Your task to perform on an android device: Open Google Maps and go to "Timeline" Image 0: 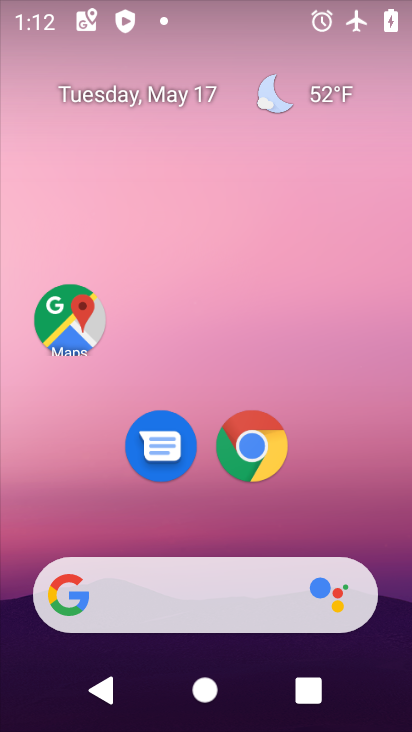
Step 0: click (73, 307)
Your task to perform on an android device: Open Google Maps and go to "Timeline" Image 1: 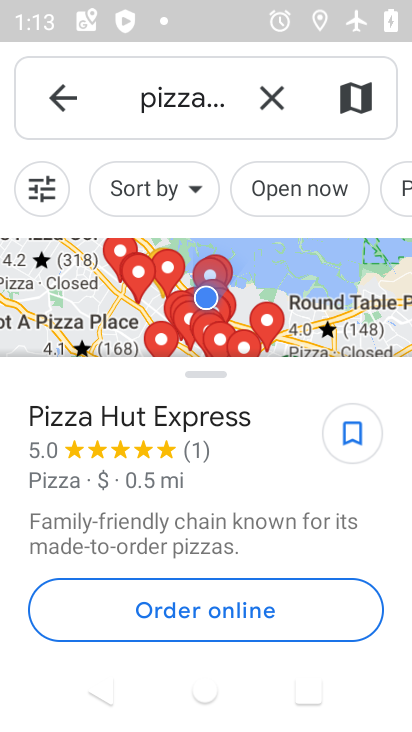
Step 1: click (68, 97)
Your task to perform on an android device: Open Google Maps and go to "Timeline" Image 2: 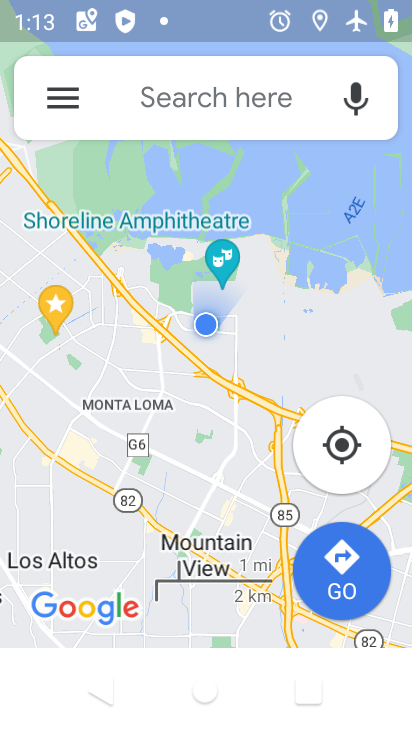
Step 2: click (57, 90)
Your task to perform on an android device: Open Google Maps and go to "Timeline" Image 3: 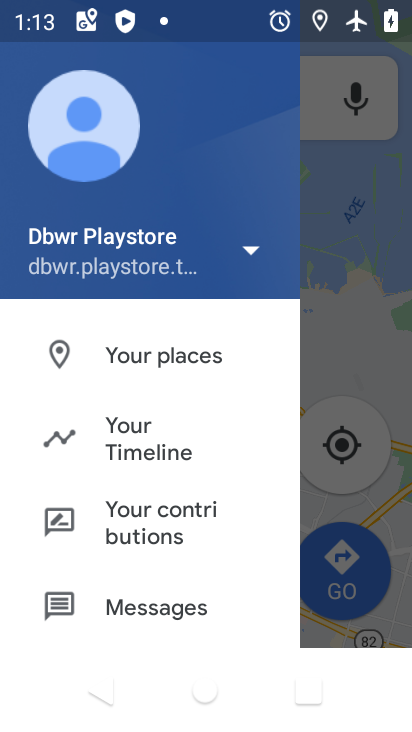
Step 3: click (154, 442)
Your task to perform on an android device: Open Google Maps and go to "Timeline" Image 4: 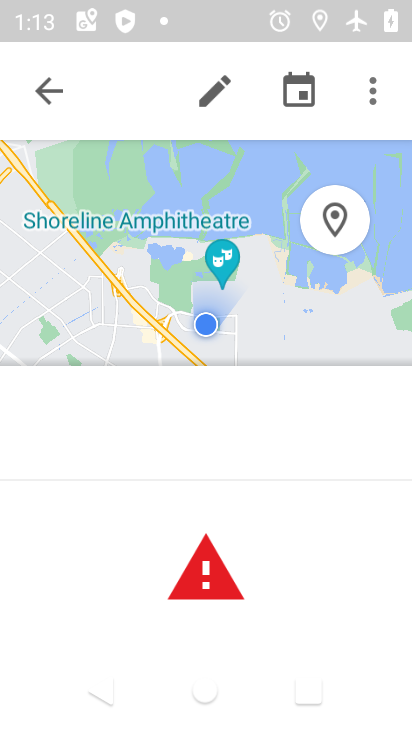
Step 4: task complete